Your task to perform on an android device: toggle wifi Image 0: 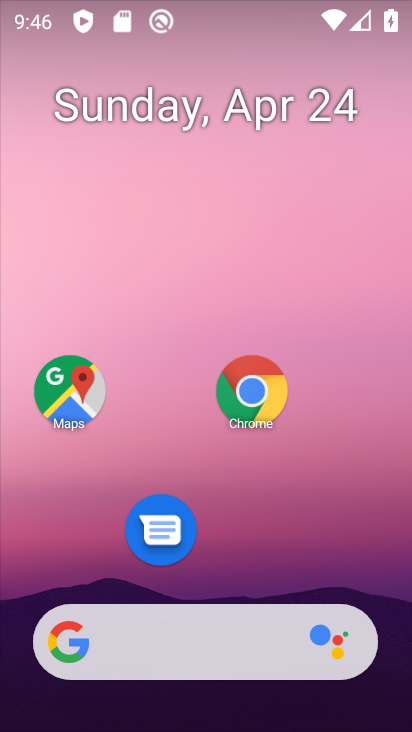
Step 0: drag from (245, 16) to (243, 689)
Your task to perform on an android device: toggle wifi Image 1: 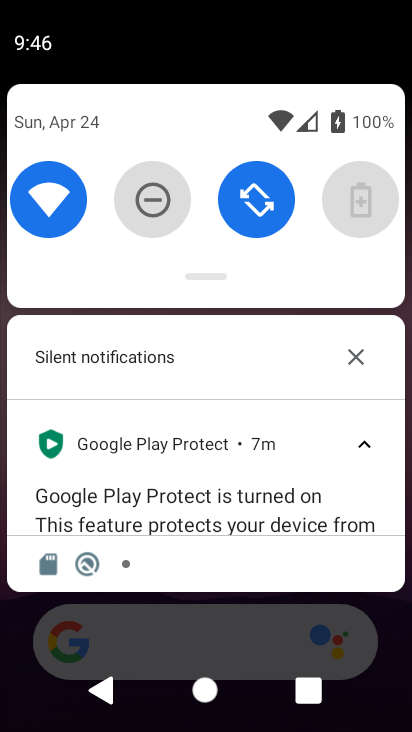
Step 1: click (54, 196)
Your task to perform on an android device: toggle wifi Image 2: 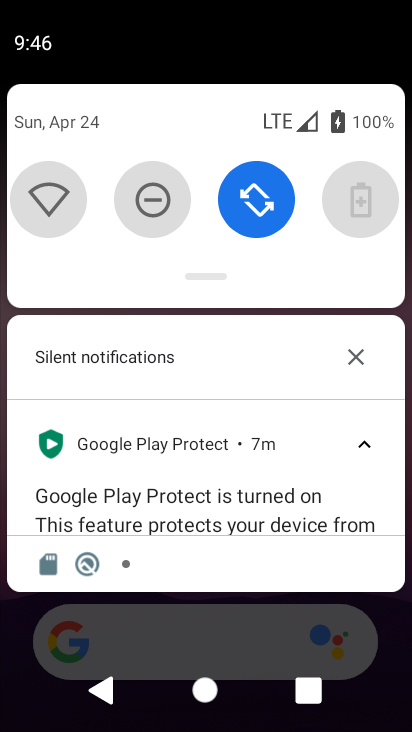
Step 2: click (54, 196)
Your task to perform on an android device: toggle wifi Image 3: 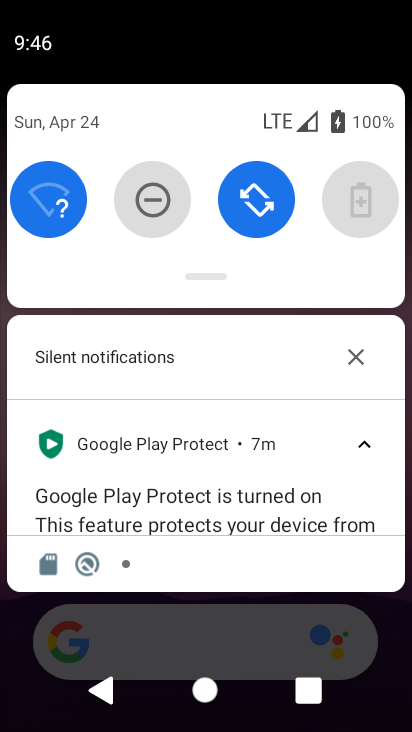
Step 3: task complete